Your task to perform on an android device: What's the weather today? Image 0: 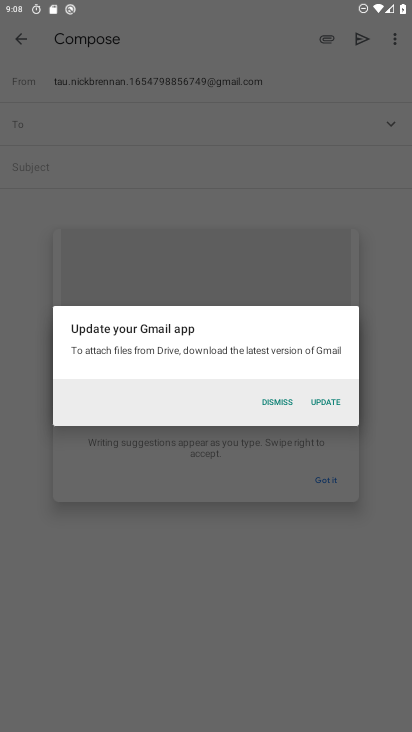
Step 0: press home button
Your task to perform on an android device: What's the weather today? Image 1: 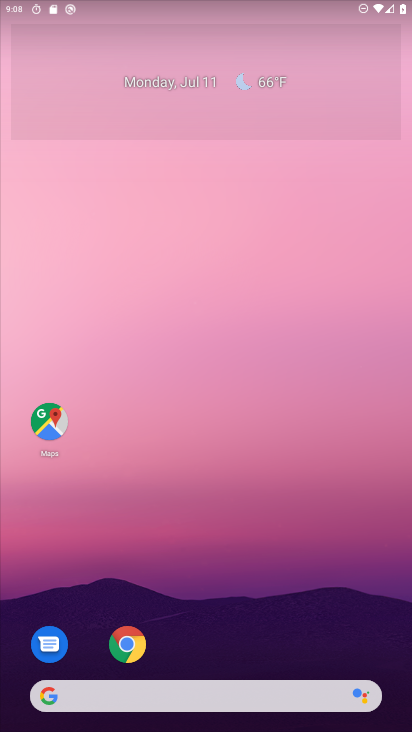
Step 1: click (278, 79)
Your task to perform on an android device: What's the weather today? Image 2: 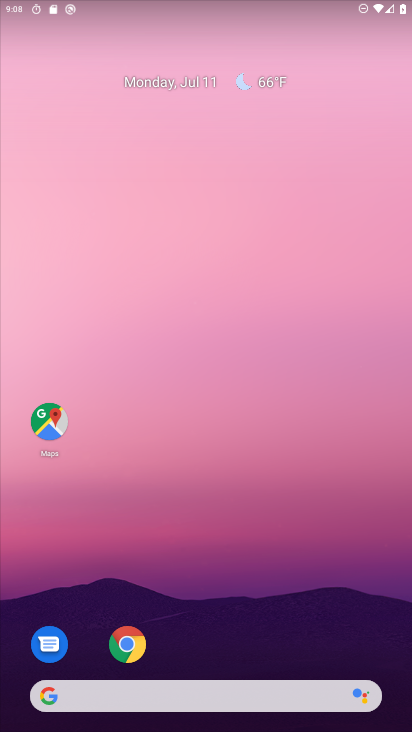
Step 2: click (272, 85)
Your task to perform on an android device: What's the weather today? Image 3: 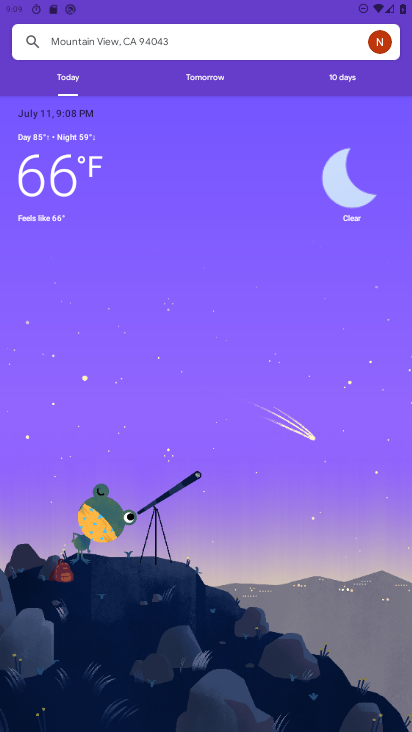
Step 3: task complete